Your task to perform on an android device: turn pop-ups off in chrome Image 0: 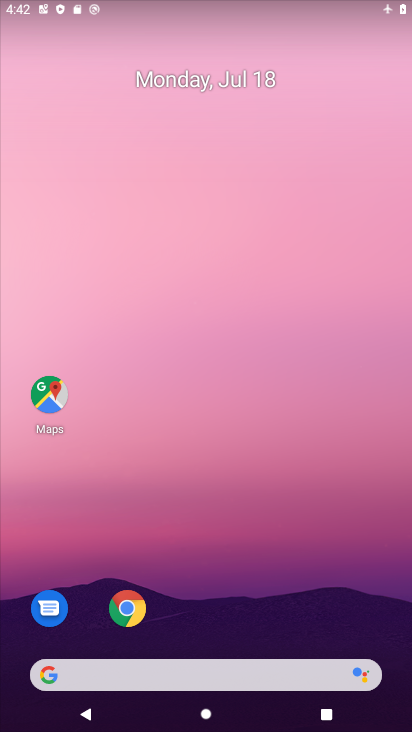
Step 0: drag from (291, 618) to (325, 55)
Your task to perform on an android device: turn pop-ups off in chrome Image 1: 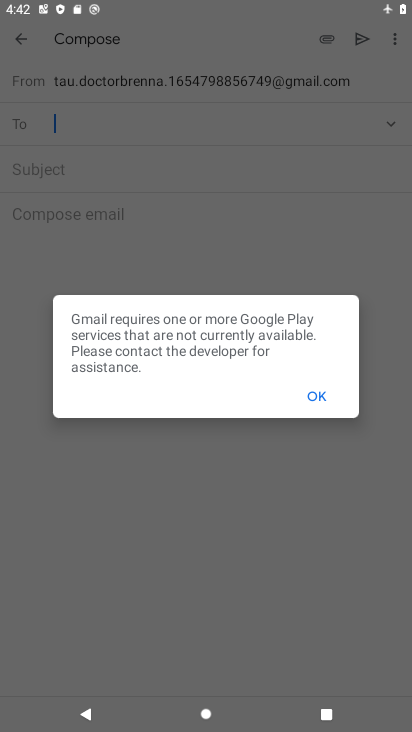
Step 1: press home button
Your task to perform on an android device: turn pop-ups off in chrome Image 2: 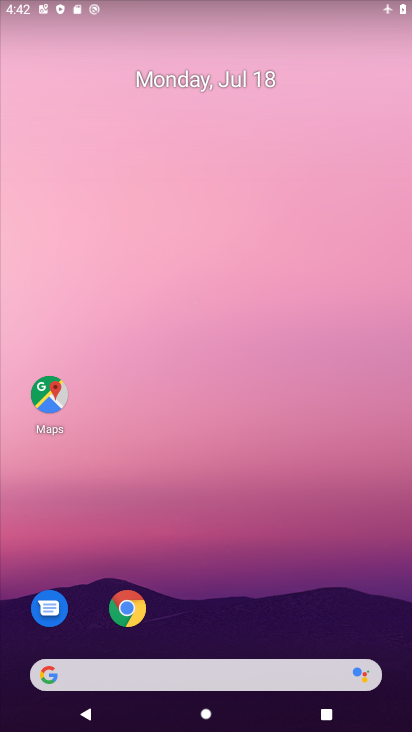
Step 2: drag from (260, 642) to (231, 105)
Your task to perform on an android device: turn pop-ups off in chrome Image 3: 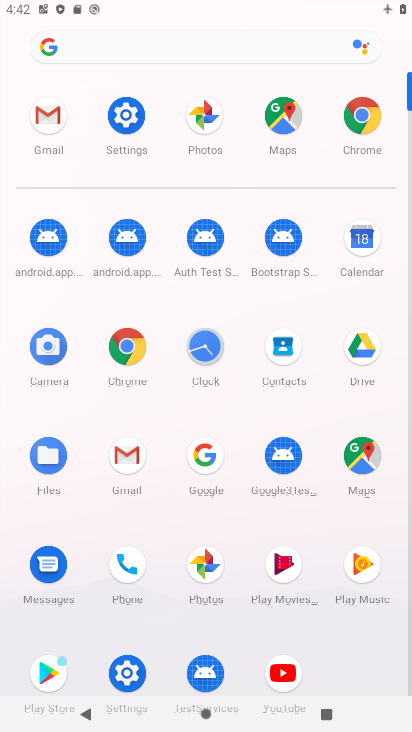
Step 3: click (369, 116)
Your task to perform on an android device: turn pop-ups off in chrome Image 4: 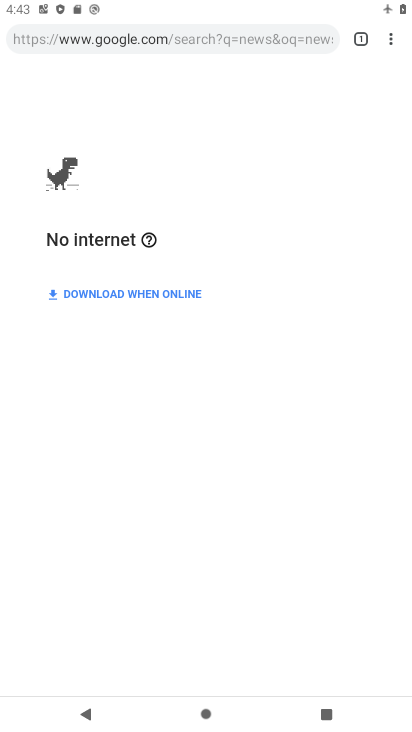
Step 4: drag from (388, 41) to (252, 429)
Your task to perform on an android device: turn pop-ups off in chrome Image 5: 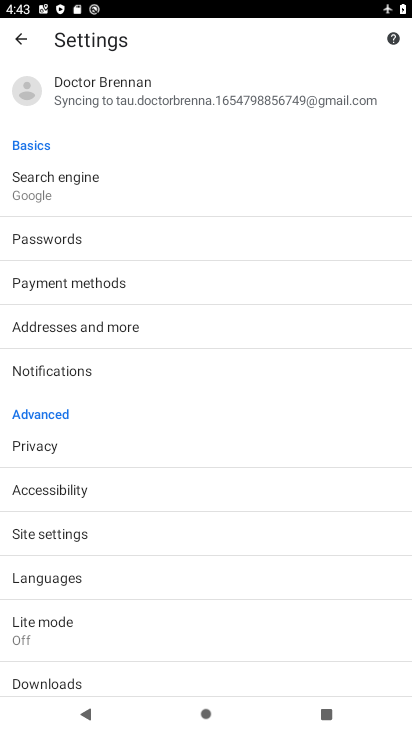
Step 5: click (64, 535)
Your task to perform on an android device: turn pop-ups off in chrome Image 6: 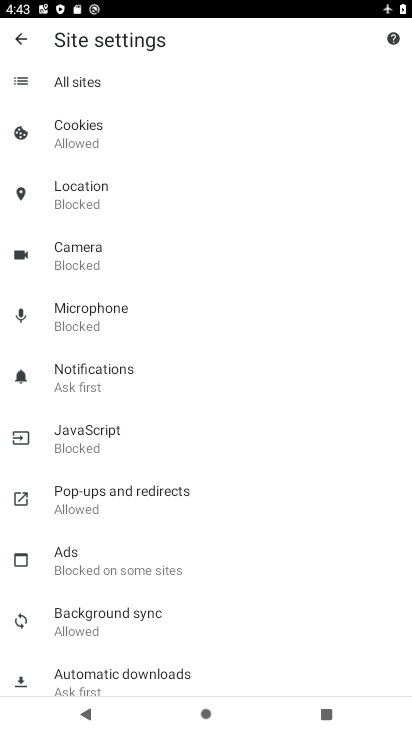
Step 6: click (109, 488)
Your task to perform on an android device: turn pop-ups off in chrome Image 7: 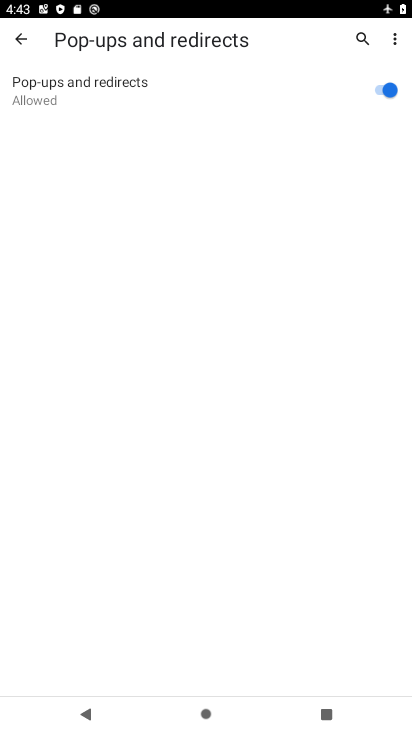
Step 7: click (387, 94)
Your task to perform on an android device: turn pop-ups off in chrome Image 8: 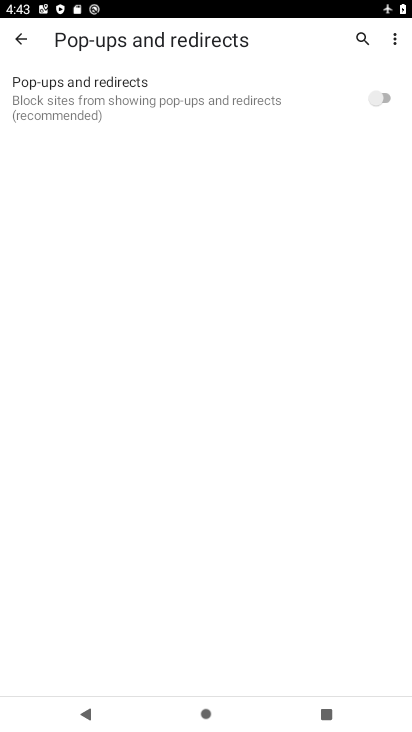
Step 8: task complete